Your task to perform on an android device: turn off location Image 0: 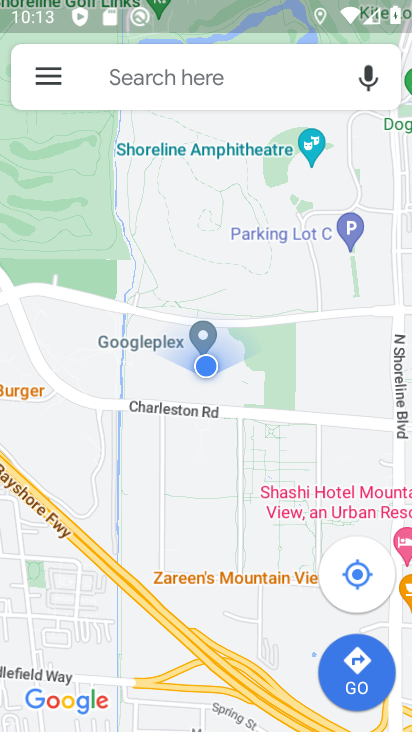
Step 0: press home button
Your task to perform on an android device: turn off location Image 1: 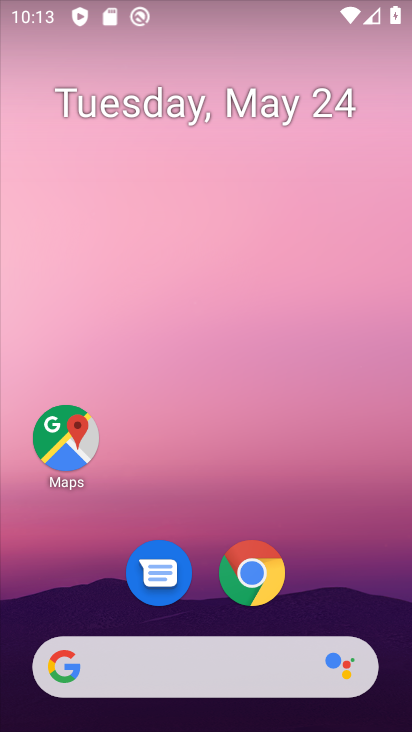
Step 1: drag from (389, 586) to (351, 31)
Your task to perform on an android device: turn off location Image 2: 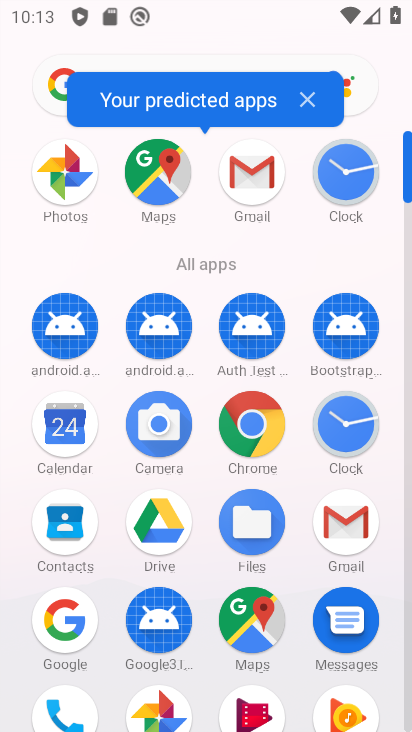
Step 2: click (407, 675)
Your task to perform on an android device: turn off location Image 3: 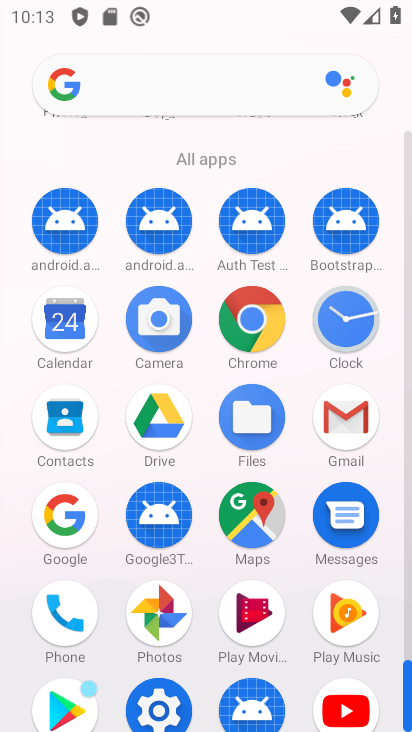
Step 3: click (174, 704)
Your task to perform on an android device: turn off location Image 4: 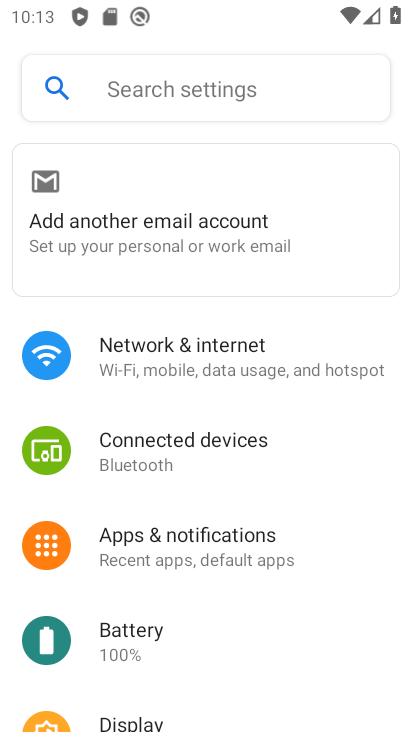
Step 4: drag from (268, 670) to (250, 201)
Your task to perform on an android device: turn off location Image 5: 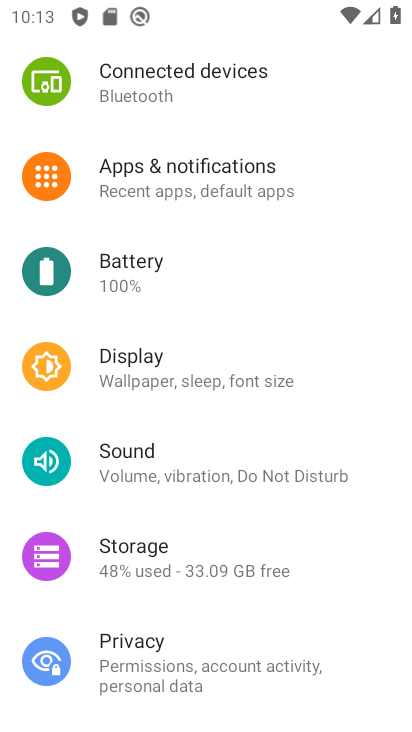
Step 5: drag from (230, 647) to (225, 181)
Your task to perform on an android device: turn off location Image 6: 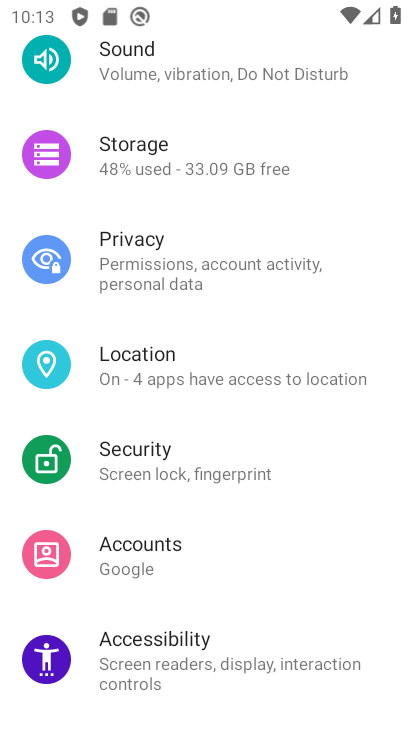
Step 6: click (218, 351)
Your task to perform on an android device: turn off location Image 7: 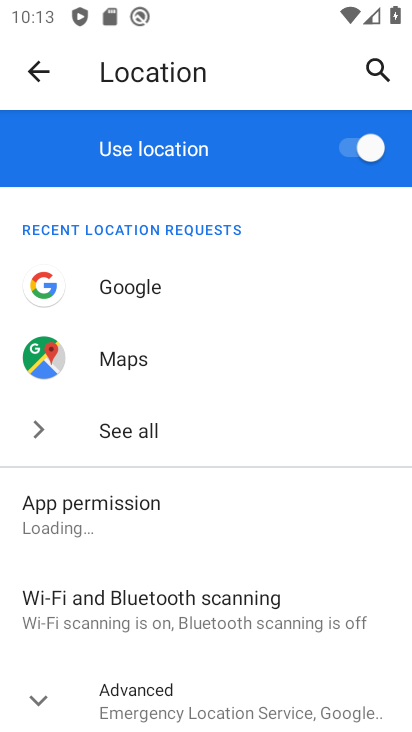
Step 7: click (345, 162)
Your task to perform on an android device: turn off location Image 8: 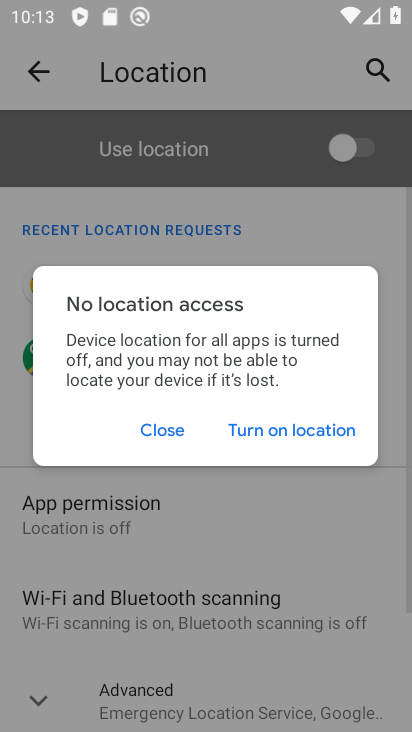
Step 8: task complete